Your task to perform on an android device: Open calendar and show me the fourth week of next month Image 0: 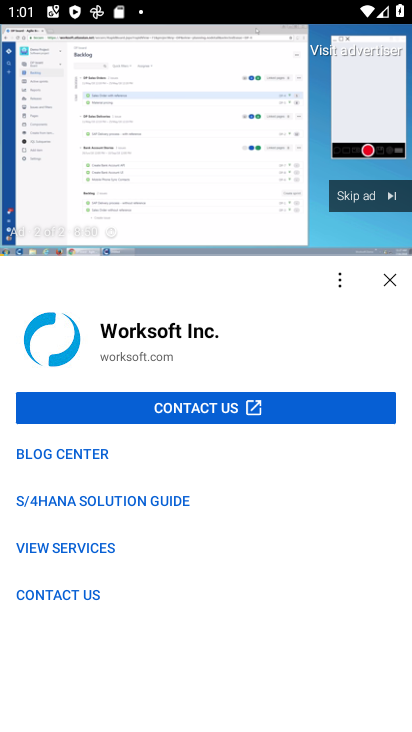
Step 0: press home button
Your task to perform on an android device: Open calendar and show me the fourth week of next month Image 1: 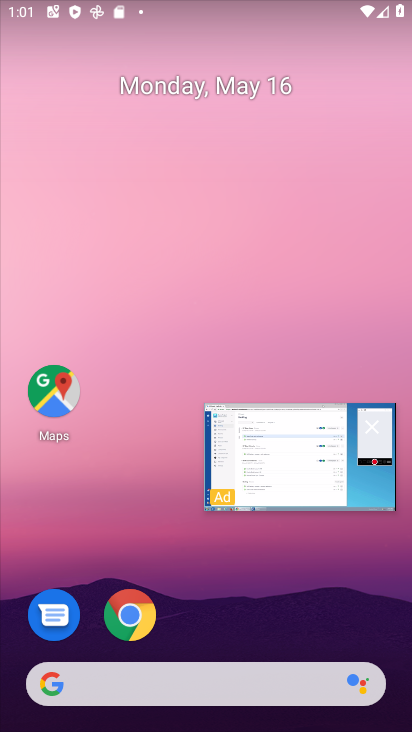
Step 1: drag from (257, 663) to (226, 99)
Your task to perform on an android device: Open calendar and show me the fourth week of next month Image 2: 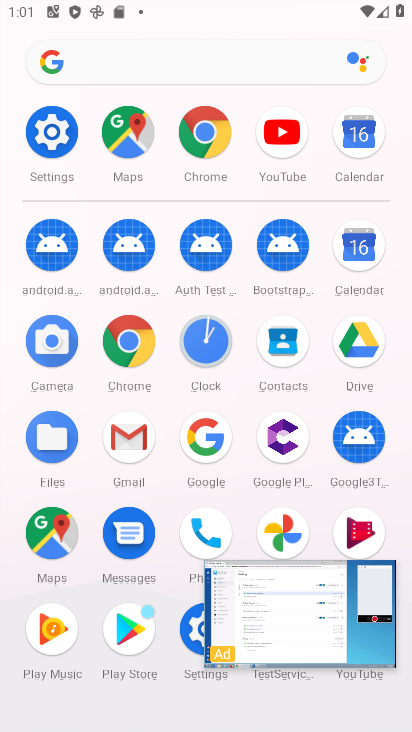
Step 2: click (334, 620)
Your task to perform on an android device: Open calendar and show me the fourth week of next month Image 3: 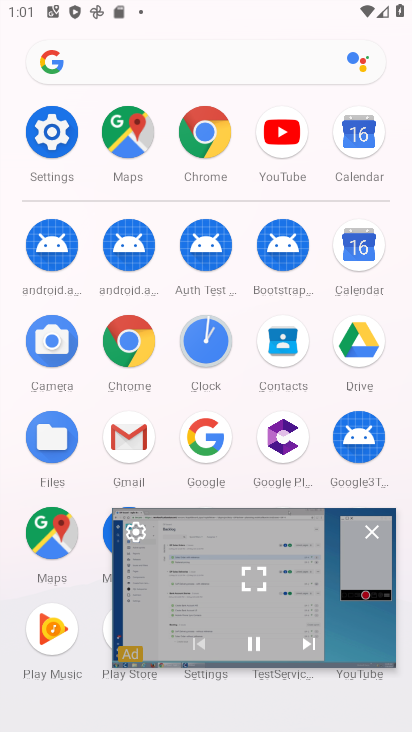
Step 3: click (376, 530)
Your task to perform on an android device: Open calendar and show me the fourth week of next month Image 4: 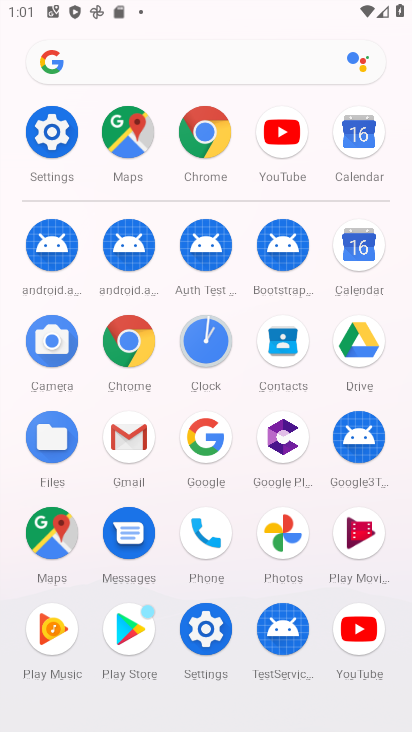
Step 4: click (348, 255)
Your task to perform on an android device: Open calendar and show me the fourth week of next month Image 5: 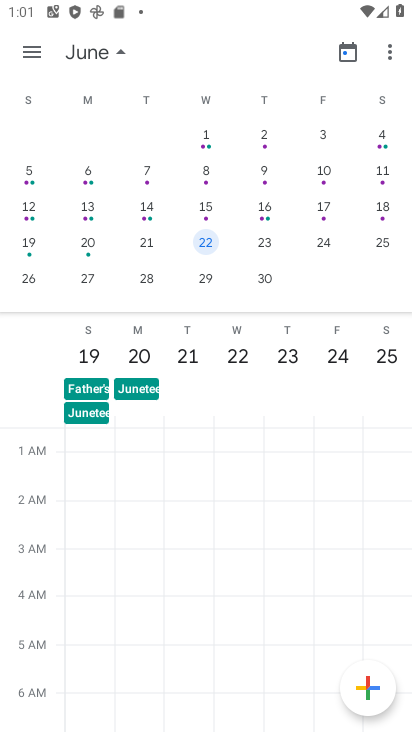
Step 5: click (262, 235)
Your task to perform on an android device: Open calendar and show me the fourth week of next month Image 6: 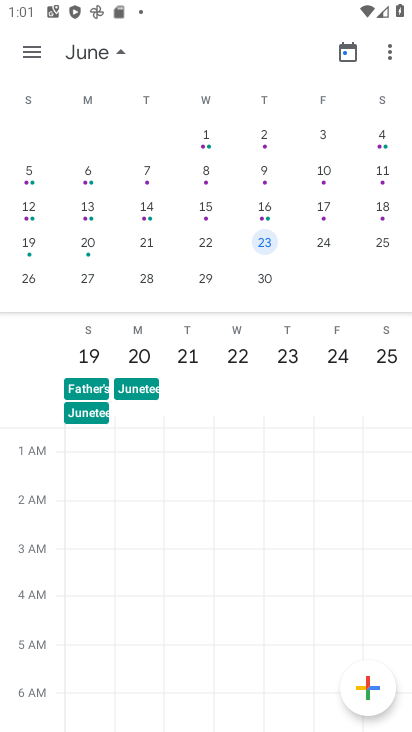
Step 6: task complete